Your task to perform on an android device: Open internet settings Image 0: 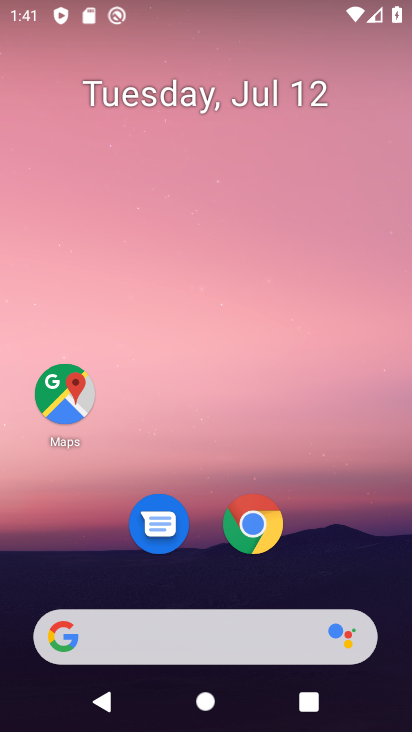
Step 0: drag from (323, 484) to (349, 0)
Your task to perform on an android device: Open internet settings Image 1: 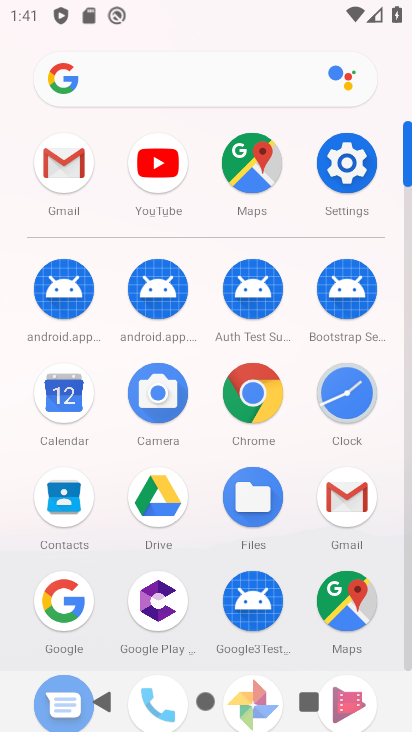
Step 1: click (341, 164)
Your task to perform on an android device: Open internet settings Image 2: 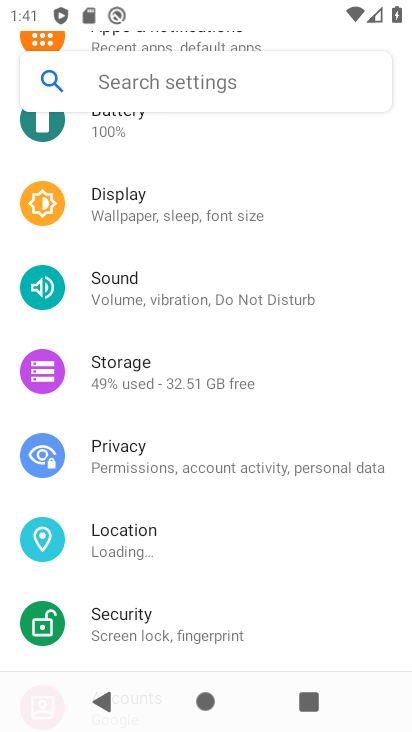
Step 2: drag from (255, 266) to (241, 630)
Your task to perform on an android device: Open internet settings Image 3: 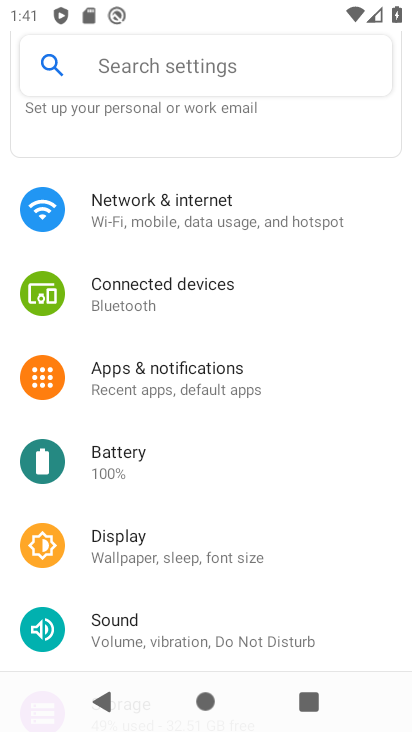
Step 3: click (255, 215)
Your task to perform on an android device: Open internet settings Image 4: 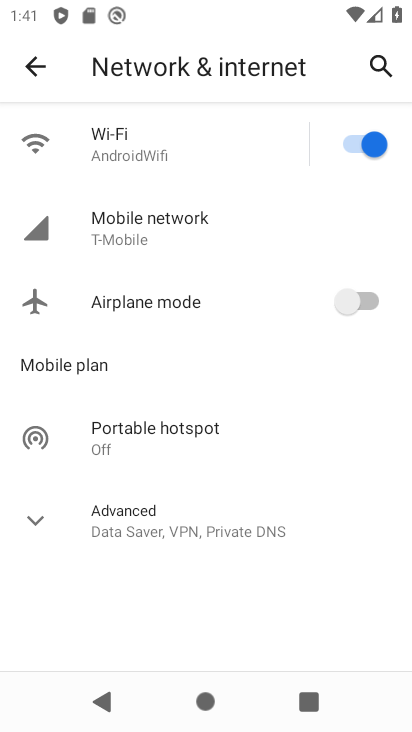
Step 4: task complete